Your task to perform on an android device: Go to accessibility settings Image 0: 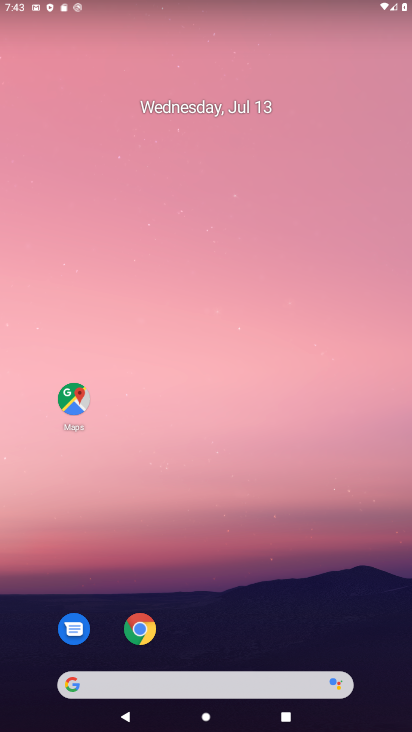
Step 0: drag from (254, 648) to (261, 74)
Your task to perform on an android device: Go to accessibility settings Image 1: 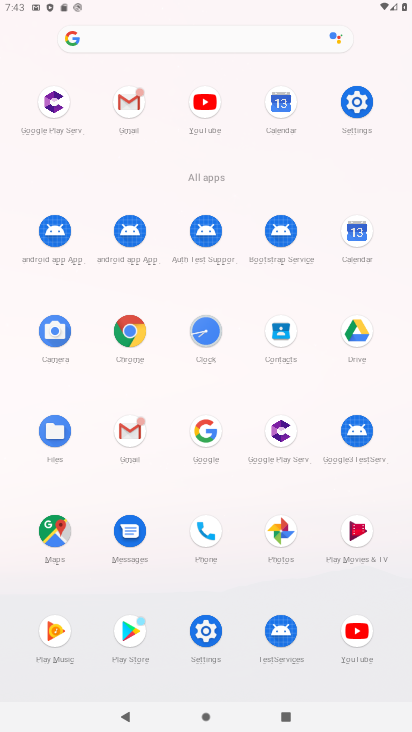
Step 1: click (206, 634)
Your task to perform on an android device: Go to accessibility settings Image 2: 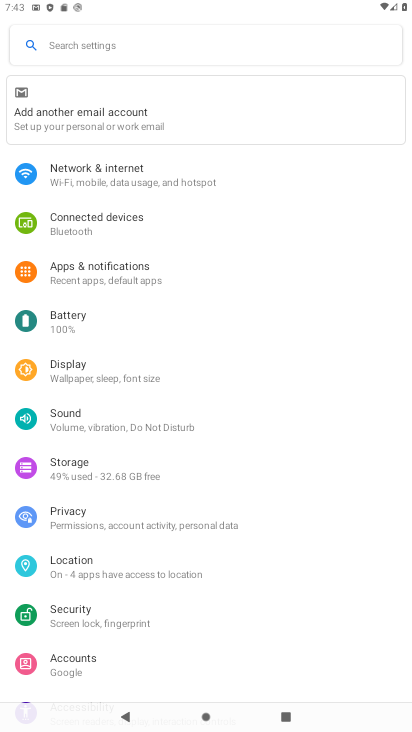
Step 2: drag from (136, 653) to (170, 277)
Your task to perform on an android device: Go to accessibility settings Image 3: 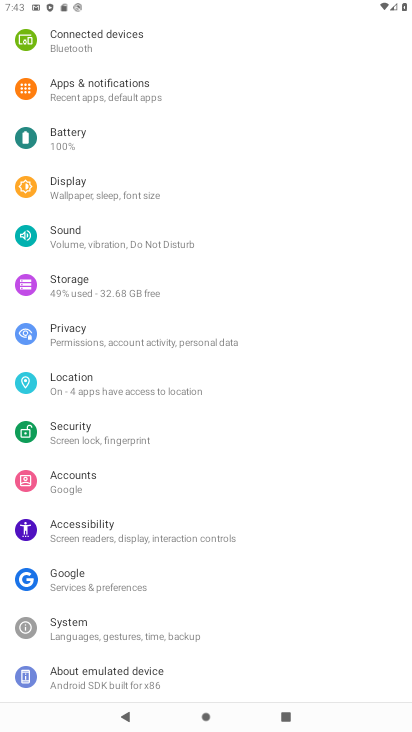
Step 3: click (77, 525)
Your task to perform on an android device: Go to accessibility settings Image 4: 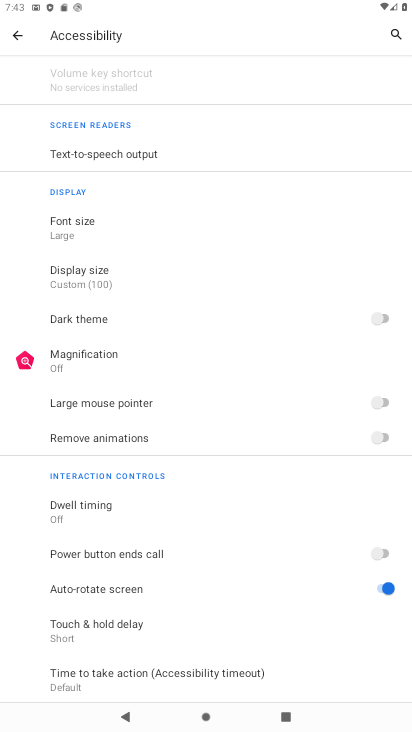
Step 4: task complete